Your task to perform on an android device: create a new album in the google photos Image 0: 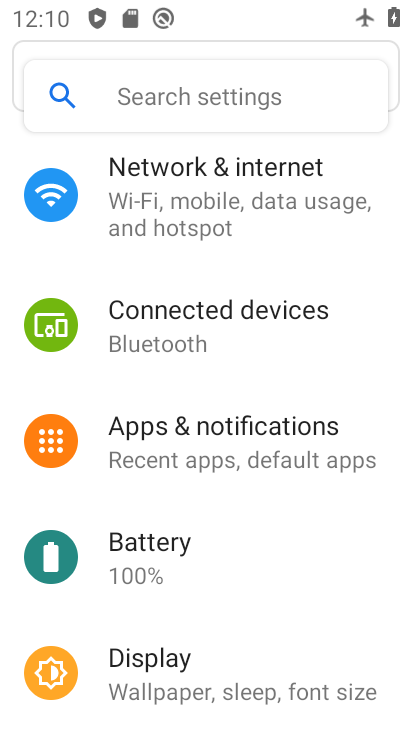
Step 0: press home button
Your task to perform on an android device: create a new album in the google photos Image 1: 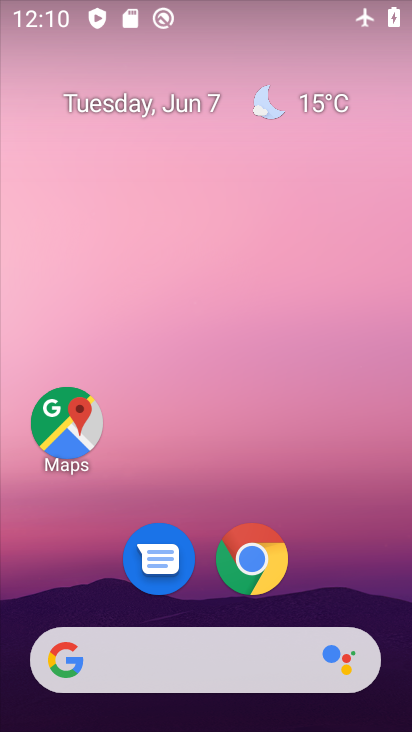
Step 1: drag from (387, 623) to (390, 101)
Your task to perform on an android device: create a new album in the google photos Image 2: 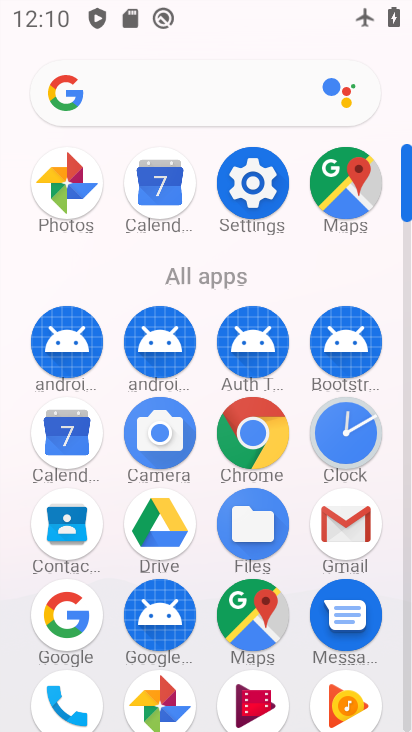
Step 2: click (404, 696)
Your task to perform on an android device: create a new album in the google photos Image 3: 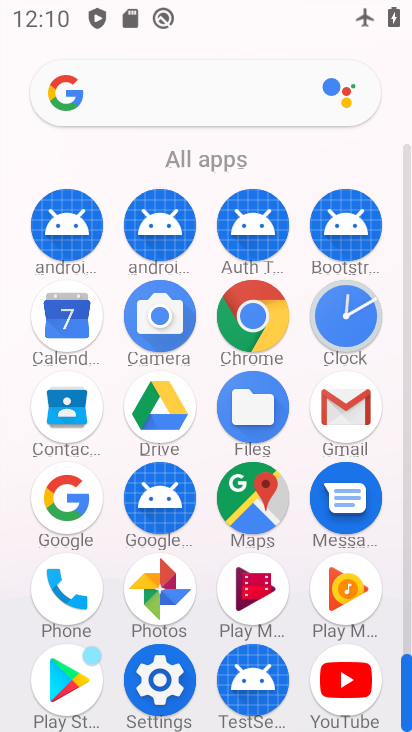
Step 3: click (160, 587)
Your task to perform on an android device: create a new album in the google photos Image 4: 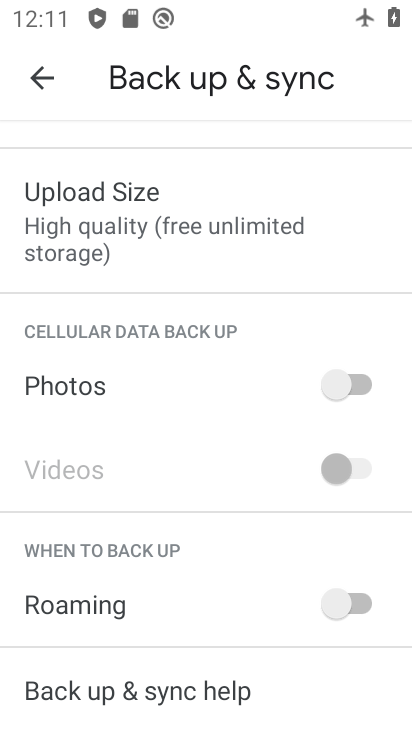
Step 4: press back button
Your task to perform on an android device: create a new album in the google photos Image 5: 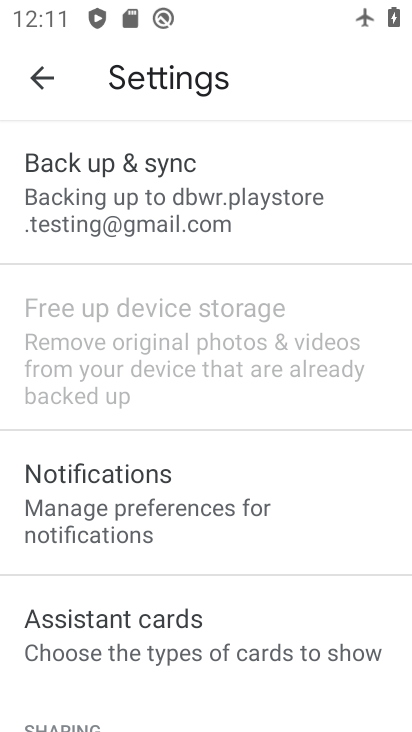
Step 5: press back button
Your task to perform on an android device: create a new album in the google photos Image 6: 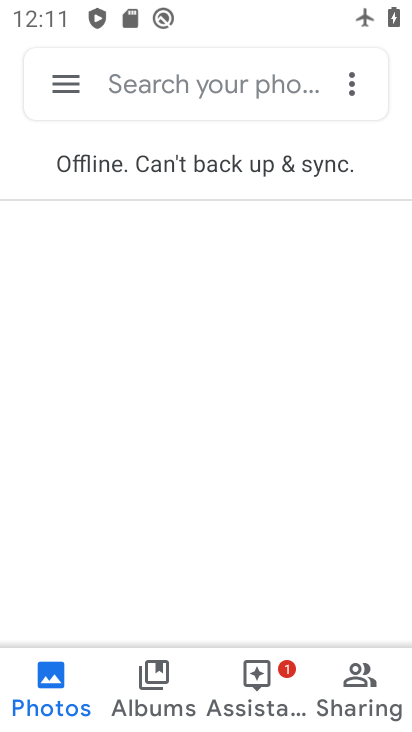
Step 6: click (161, 693)
Your task to perform on an android device: create a new album in the google photos Image 7: 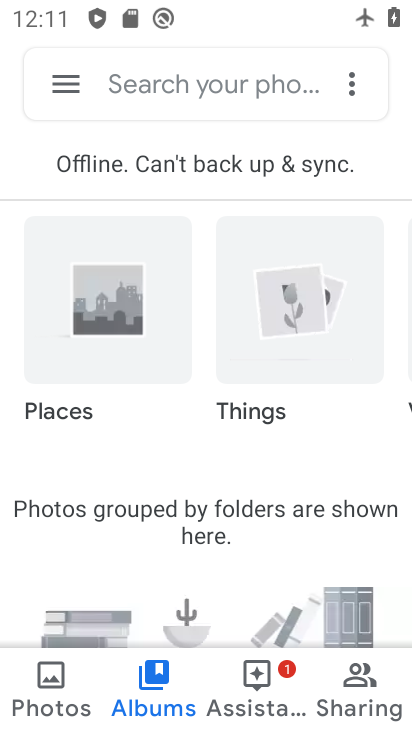
Step 7: task complete